Your task to perform on an android device: open app "LiveIn - Share Your Moment" Image 0: 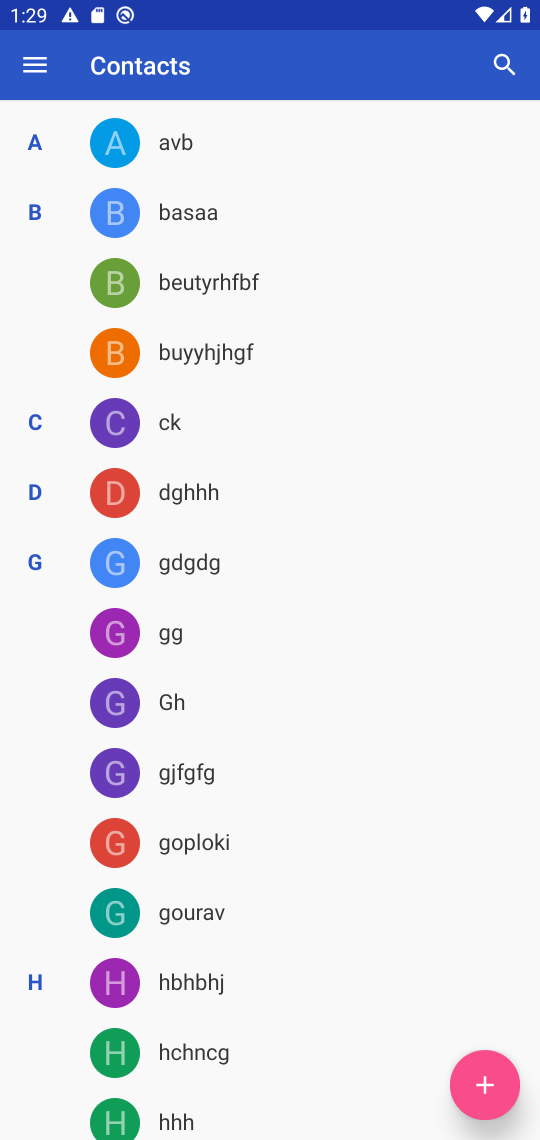
Step 0: press home button
Your task to perform on an android device: open app "LiveIn - Share Your Moment" Image 1: 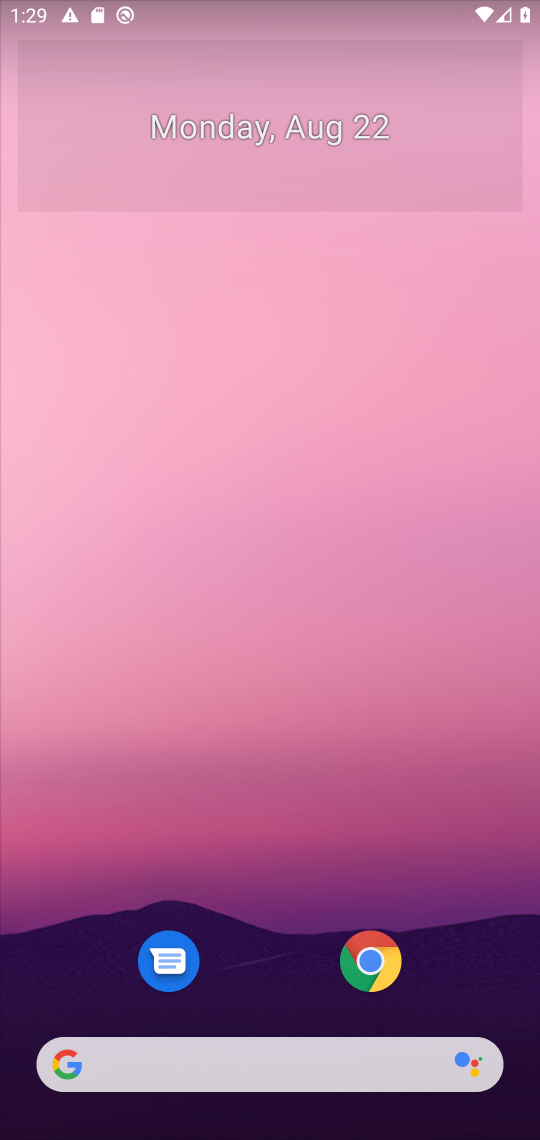
Step 1: drag from (463, 988) to (493, 166)
Your task to perform on an android device: open app "LiveIn - Share Your Moment" Image 2: 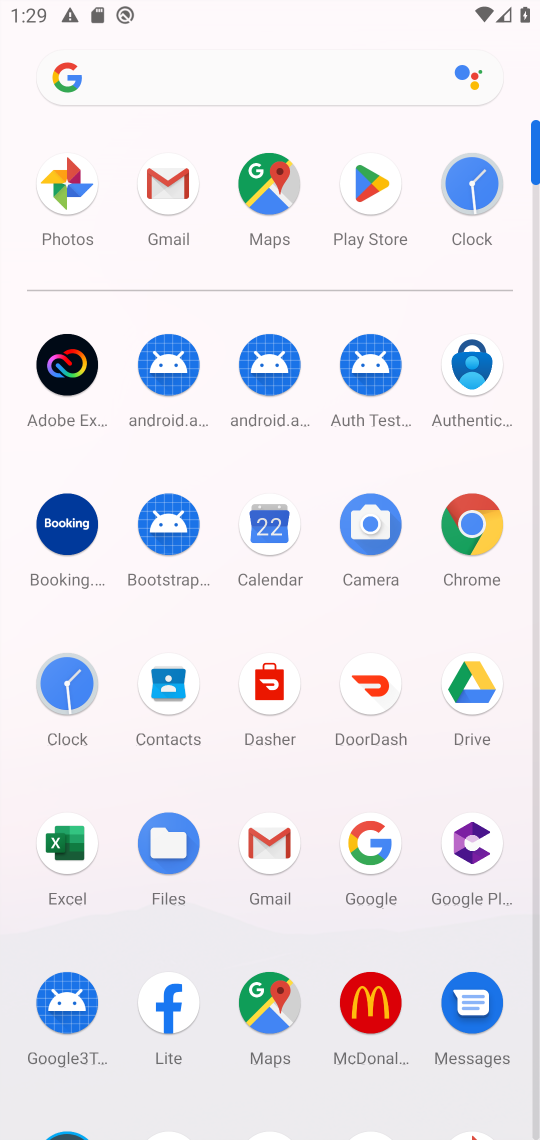
Step 2: click (373, 189)
Your task to perform on an android device: open app "LiveIn - Share Your Moment" Image 3: 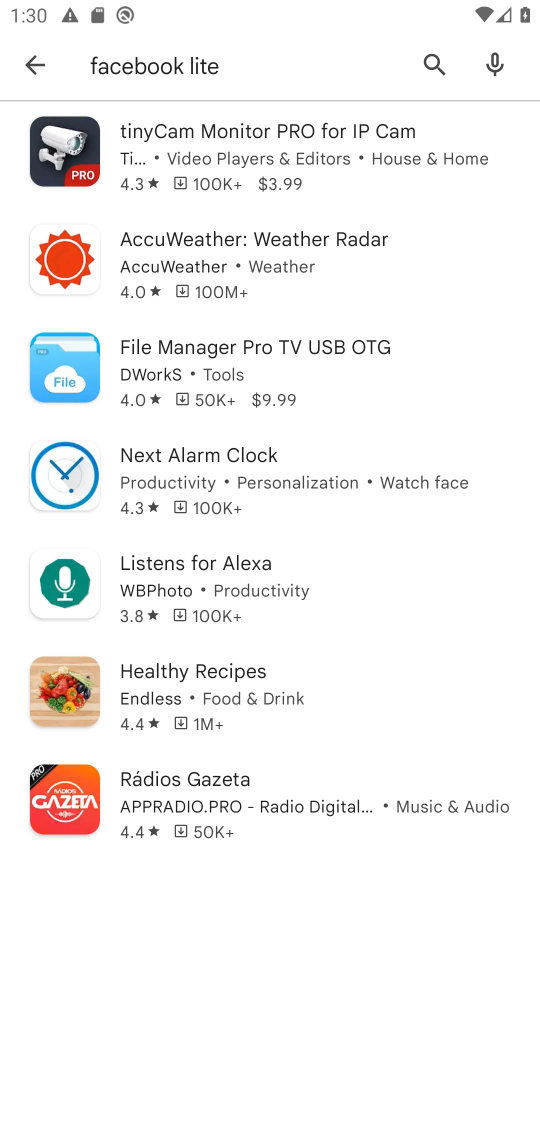
Step 3: press back button
Your task to perform on an android device: open app "LiveIn - Share Your Moment" Image 4: 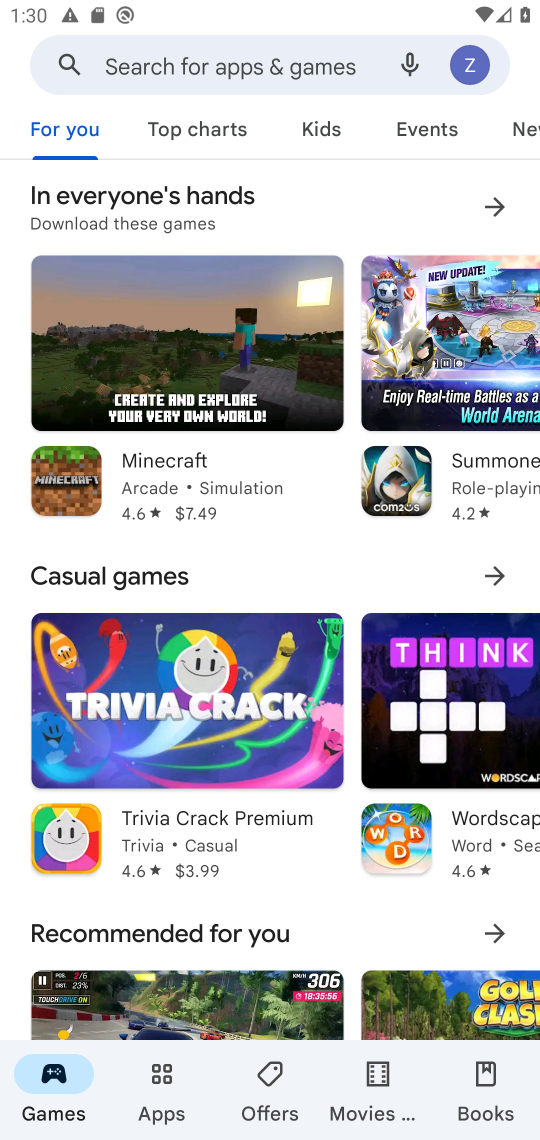
Step 4: click (277, 52)
Your task to perform on an android device: open app "LiveIn - Share Your Moment" Image 5: 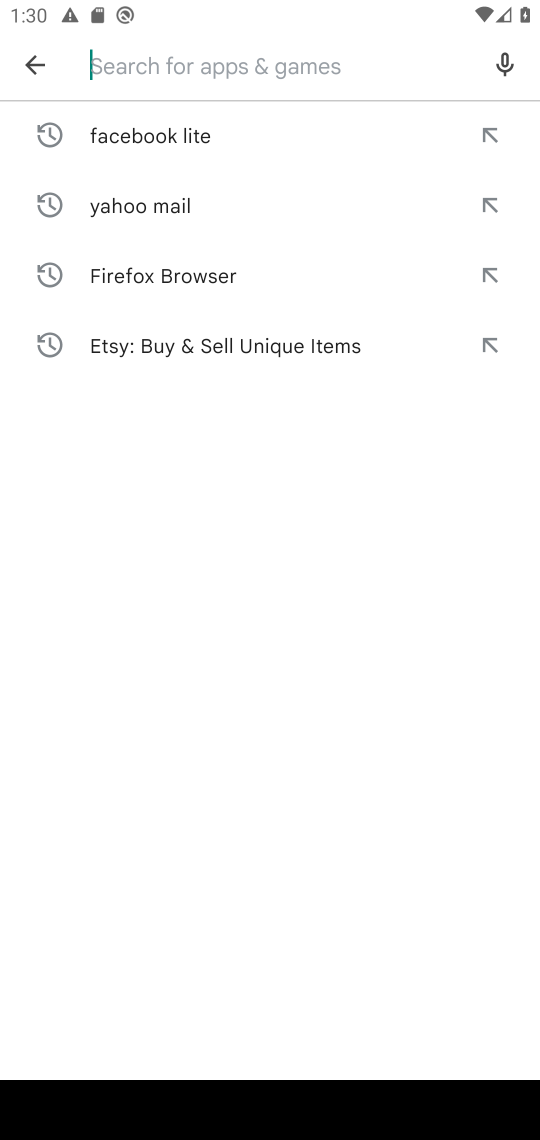
Step 5: type "LiveIn - Share Your Moment"
Your task to perform on an android device: open app "LiveIn - Share Your Moment" Image 6: 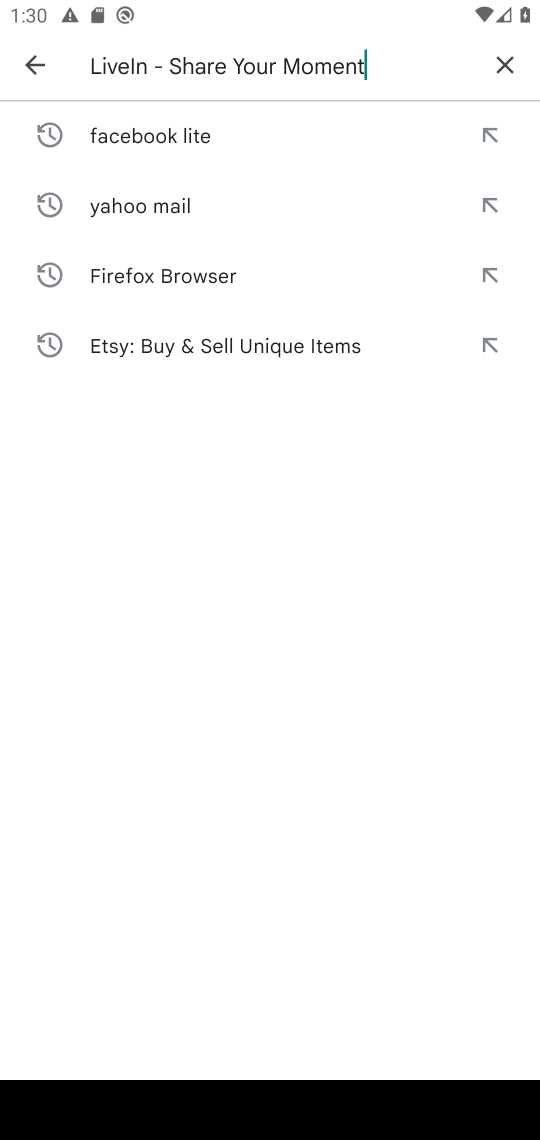
Step 6: press enter
Your task to perform on an android device: open app "LiveIn - Share Your Moment" Image 7: 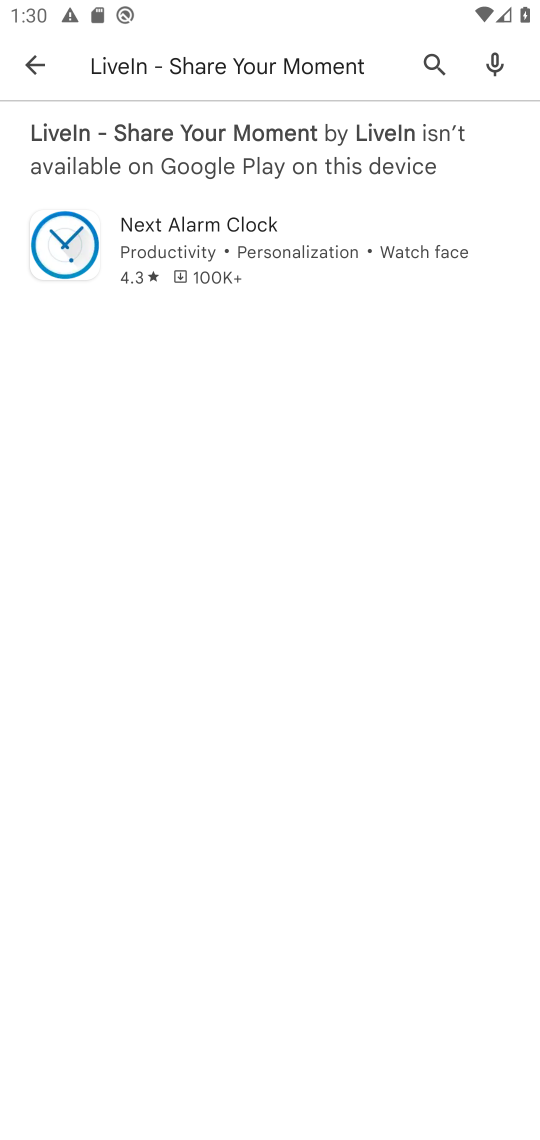
Step 7: task complete